Your task to perform on an android device: Search for acer nitro on costco.com, select the first entry, and add it to the cart. Image 0: 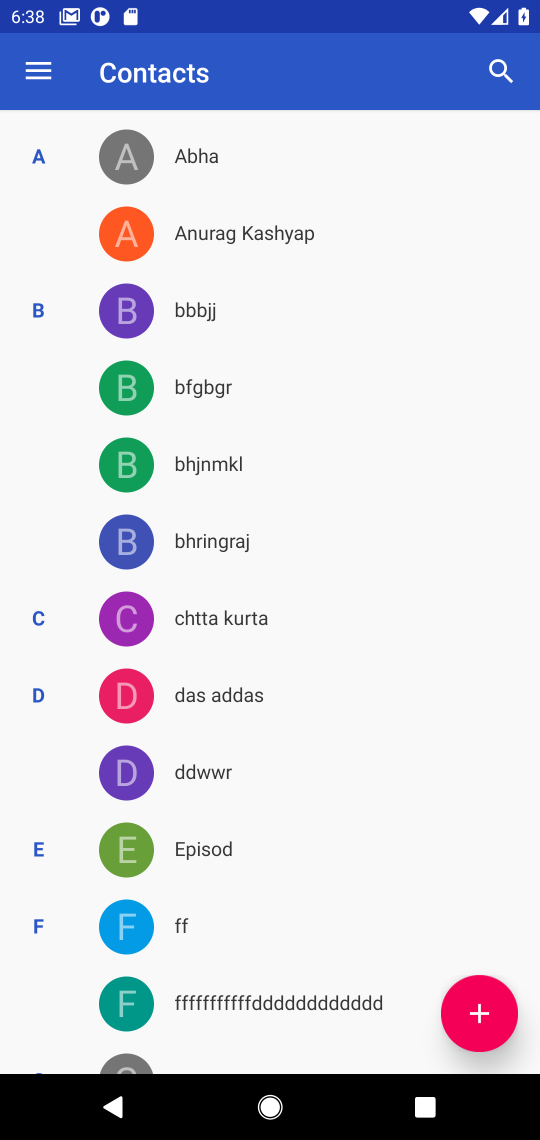
Step 0: press home button
Your task to perform on an android device: Search for acer nitro on costco.com, select the first entry, and add it to the cart. Image 1: 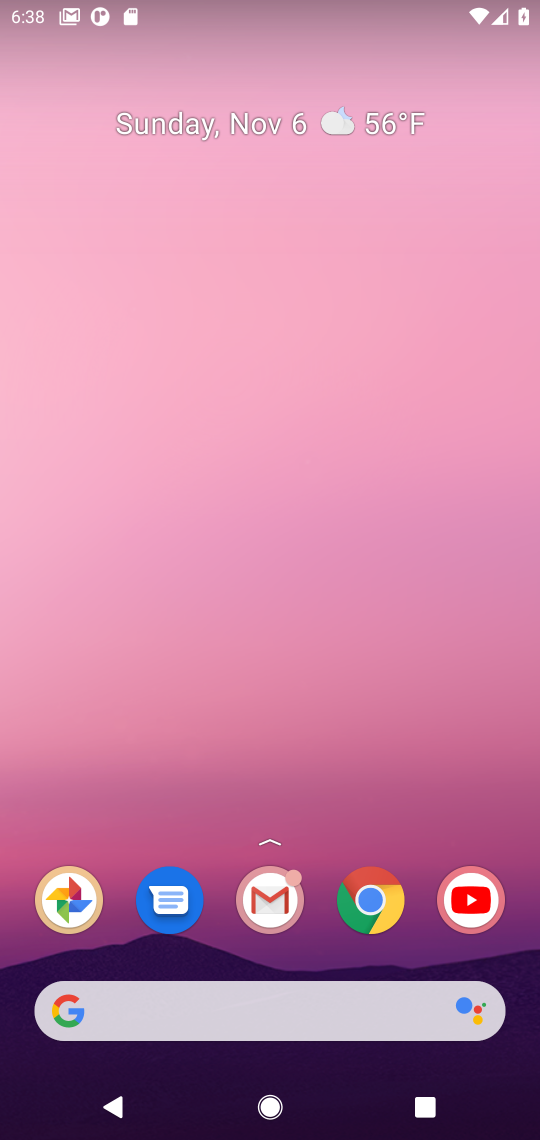
Step 1: drag from (300, 957) to (259, 13)
Your task to perform on an android device: Search for acer nitro on costco.com, select the first entry, and add it to the cart. Image 2: 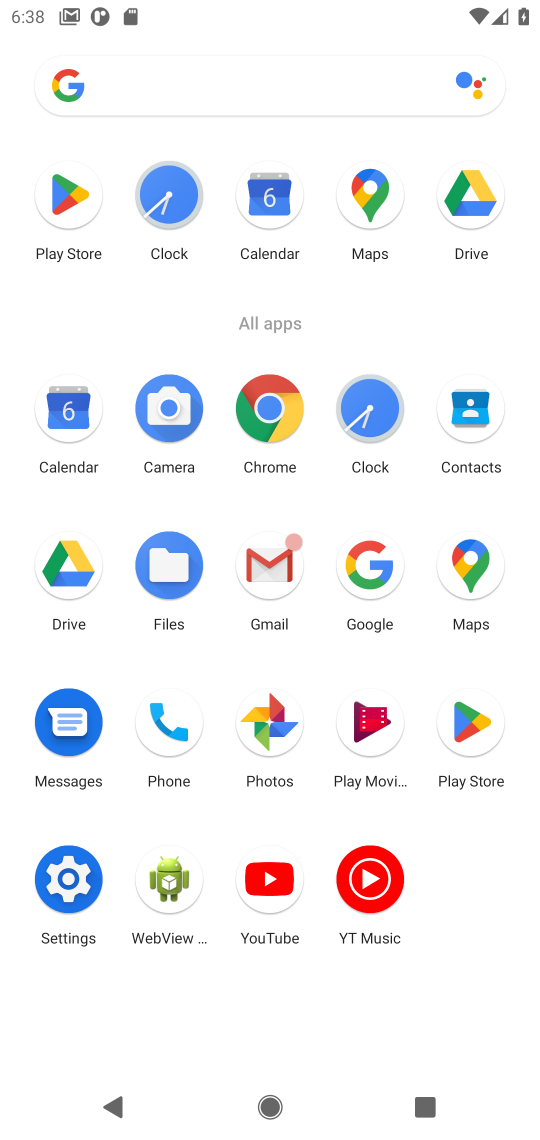
Step 2: click (268, 408)
Your task to perform on an android device: Search for acer nitro on costco.com, select the first entry, and add it to the cart. Image 3: 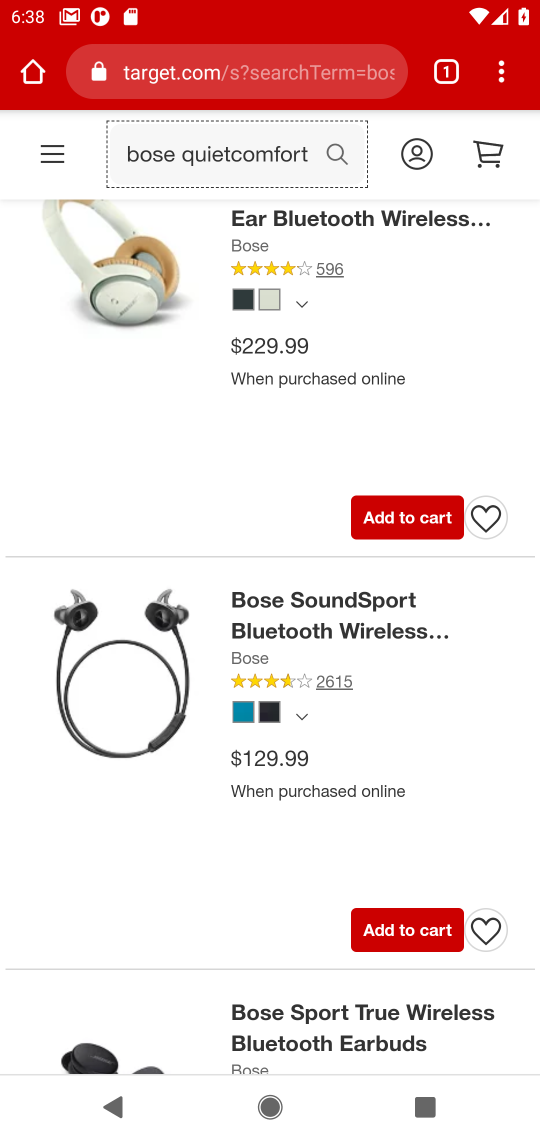
Step 3: click (239, 72)
Your task to perform on an android device: Search for acer nitro on costco.com, select the first entry, and add it to the cart. Image 4: 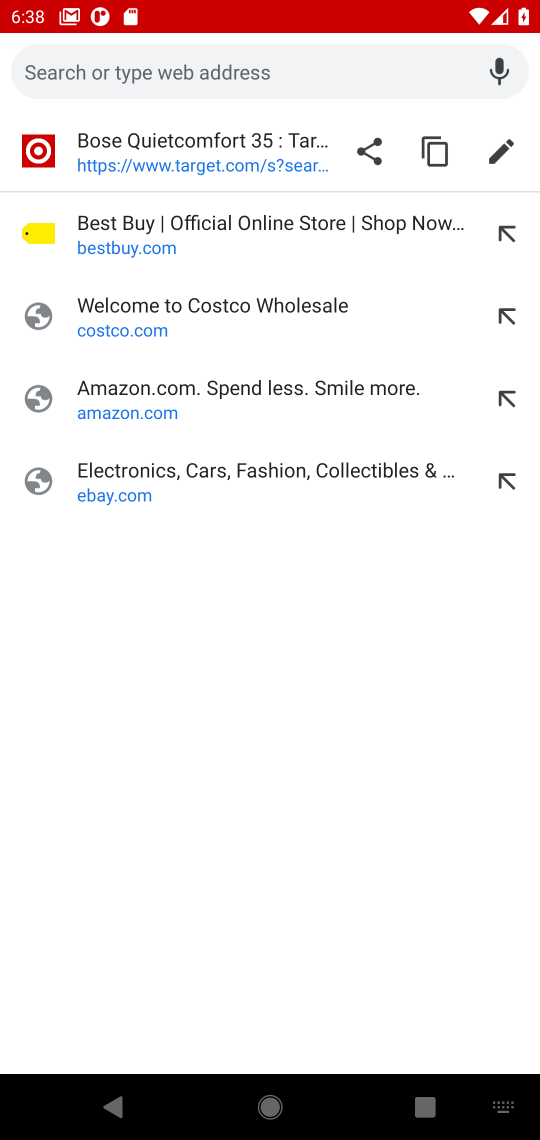
Step 4: type "costco.com"
Your task to perform on an android device: Search for acer nitro on costco.com, select the first entry, and add it to the cart. Image 5: 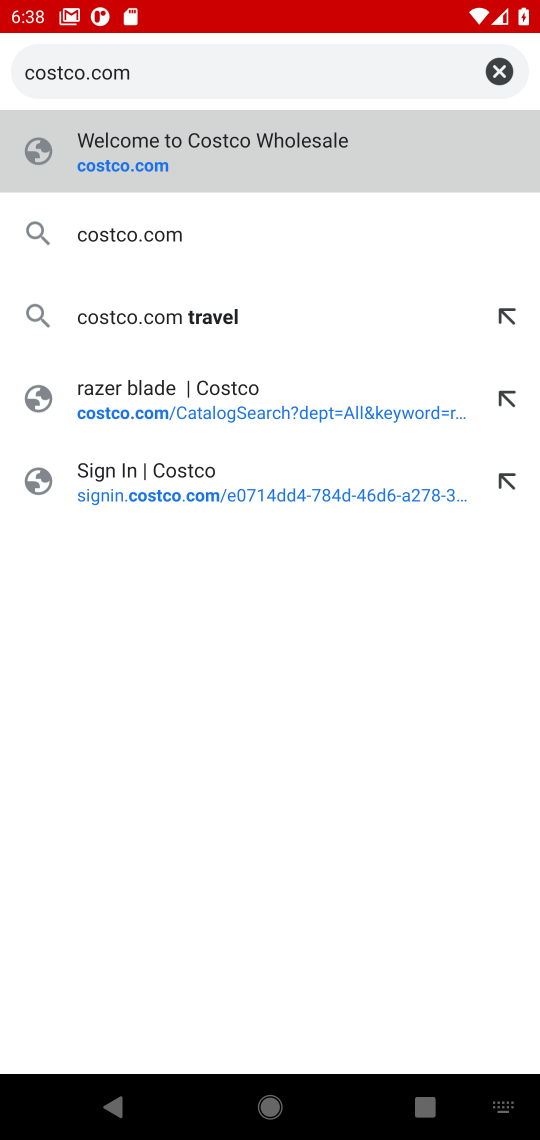
Step 5: press enter
Your task to perform on an android device: Search for acer nitro on costco.com, select the first entry, and add it to the cart. Image 6: 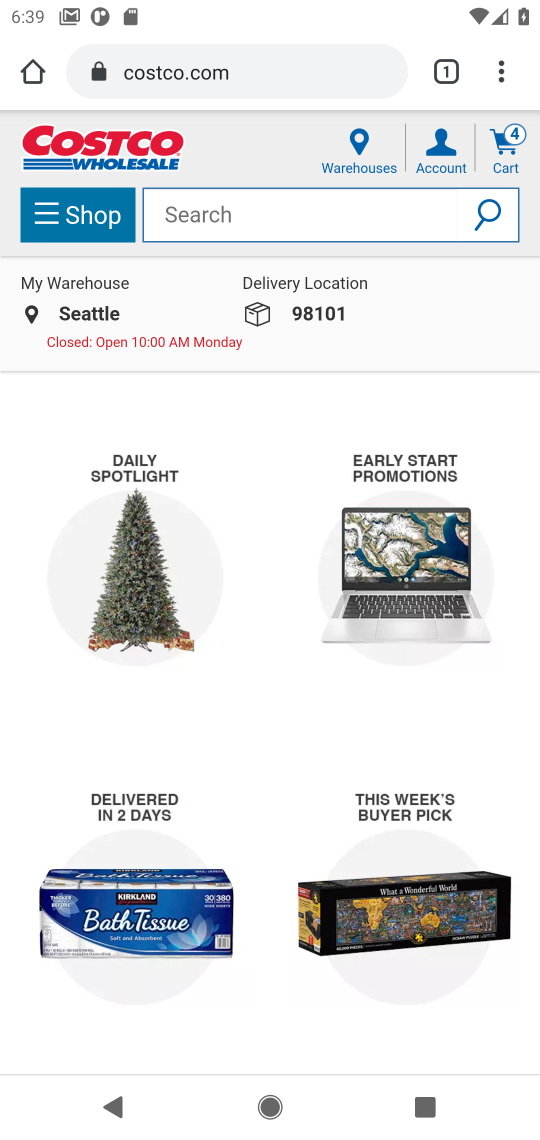
Step 6: click (306, 218)
Your task to perform on an android device: Search for acer nitro on costco.com, select the first entry, and add it to the cart. Image 7: 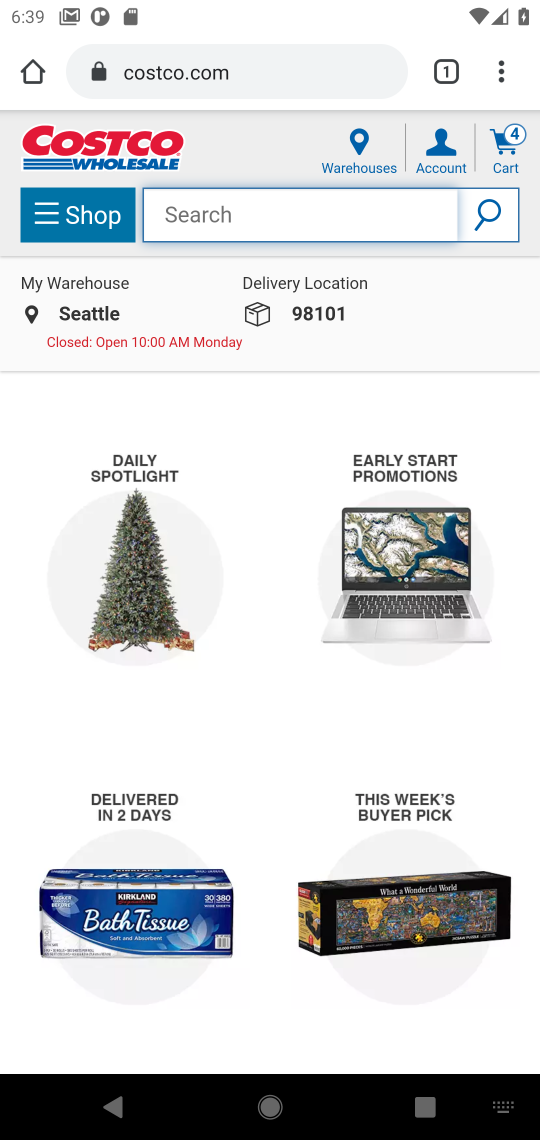
Step 7: type "acer nitro"
Your task to perform on an android device: Search for acer nitro on costco.com, select the first entry, and add it to the cart. Image 8: 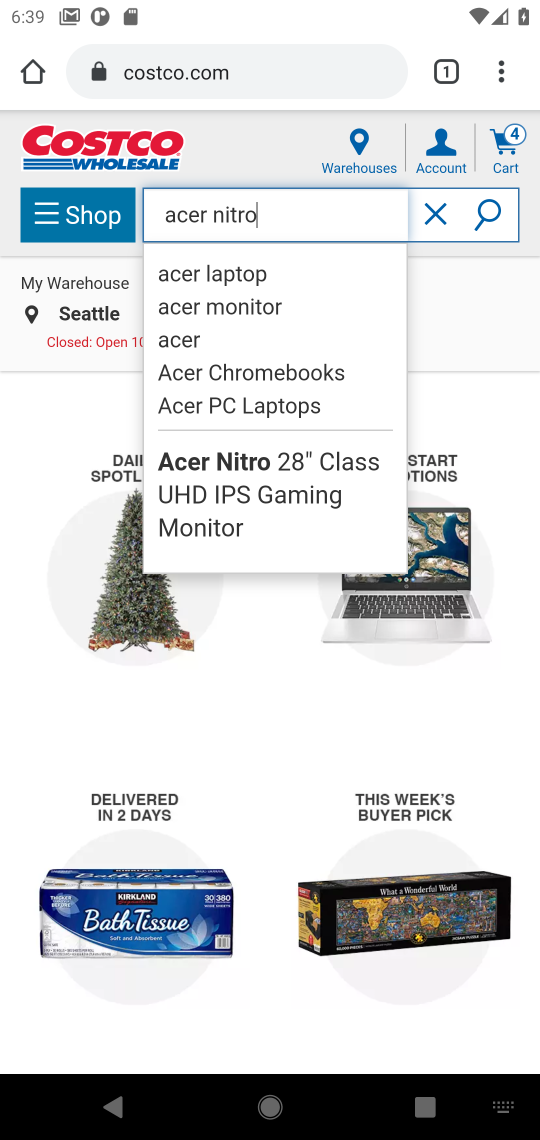
Step 8: press enter
Your task to perform on an android device: Search for acer nitro on costco.com, select the first entry, and add it to the cart. Image 9: 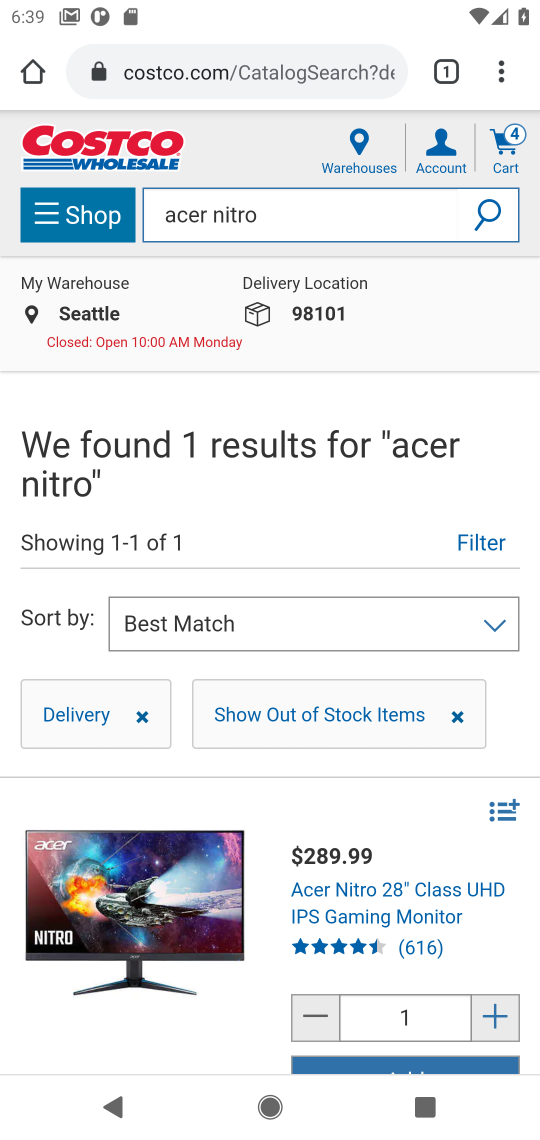
Step 9: drag from (221, 975) to (217, 665)
Your task to perform on an android device: Search for acer nitro on costco.com, select the first entry, and add it to the cart. Image 10: 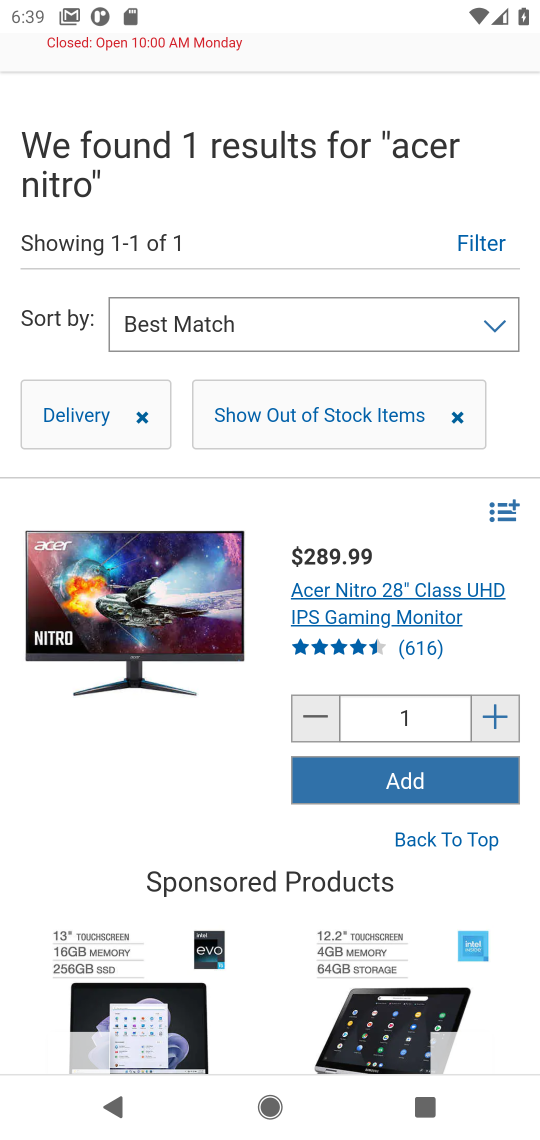
Step 10: click (401, 772)
Your task to perform on an android device: Search for acer nitro on costco.com, select the first entry, and add it to the cart. Image 11: 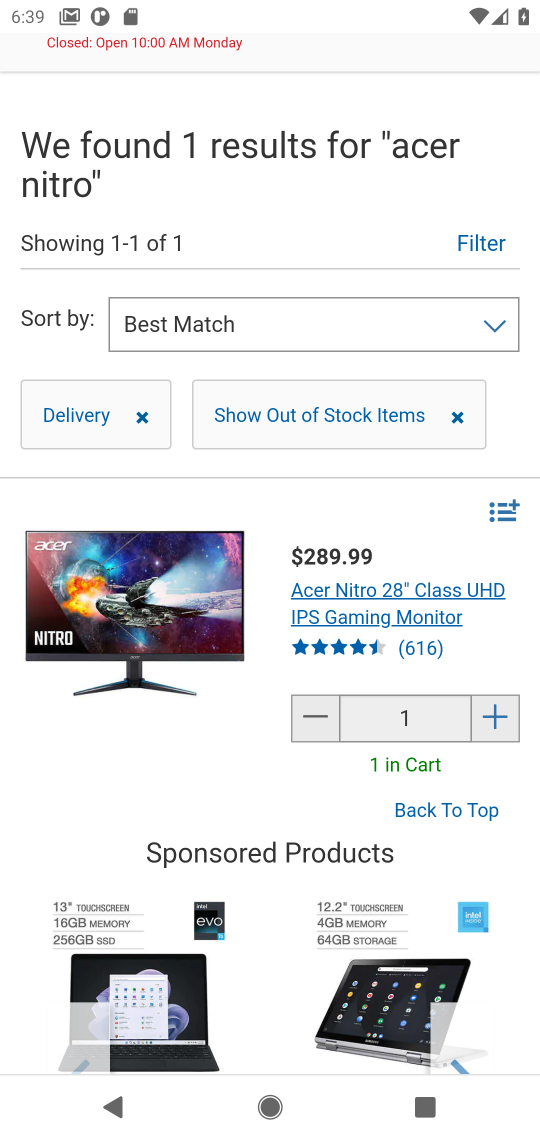
Step 11: task complete